Your task to perform on an android device: Open the map Image 0: 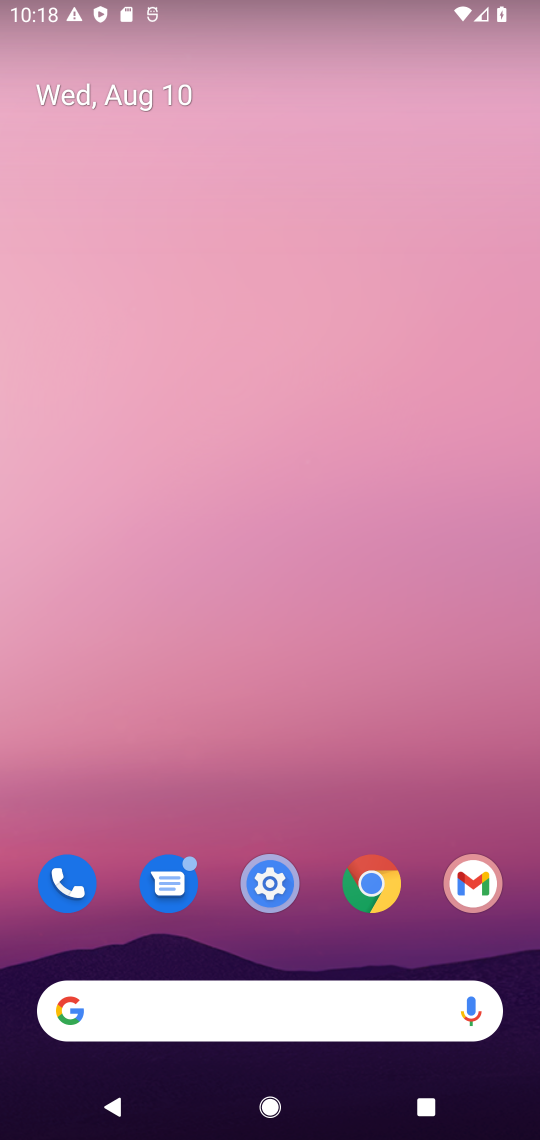
Step 0: drag from (329, 906) to (378, 77)
Your task to perform on an android device: Open the map Image 1: 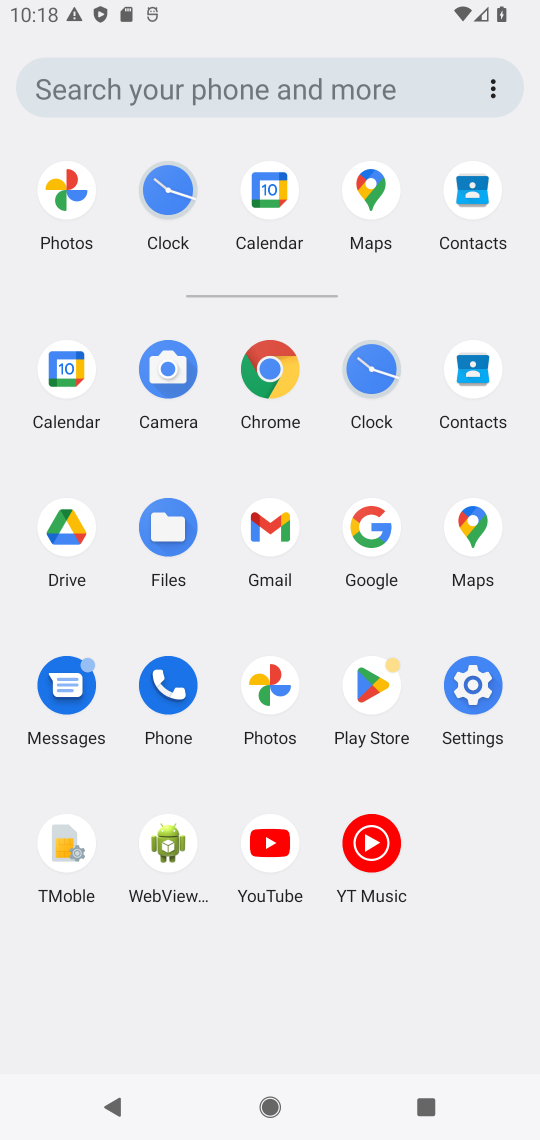
Step 1: click (479, 523)
Your task to perform on an android device: Open the map Image 2: 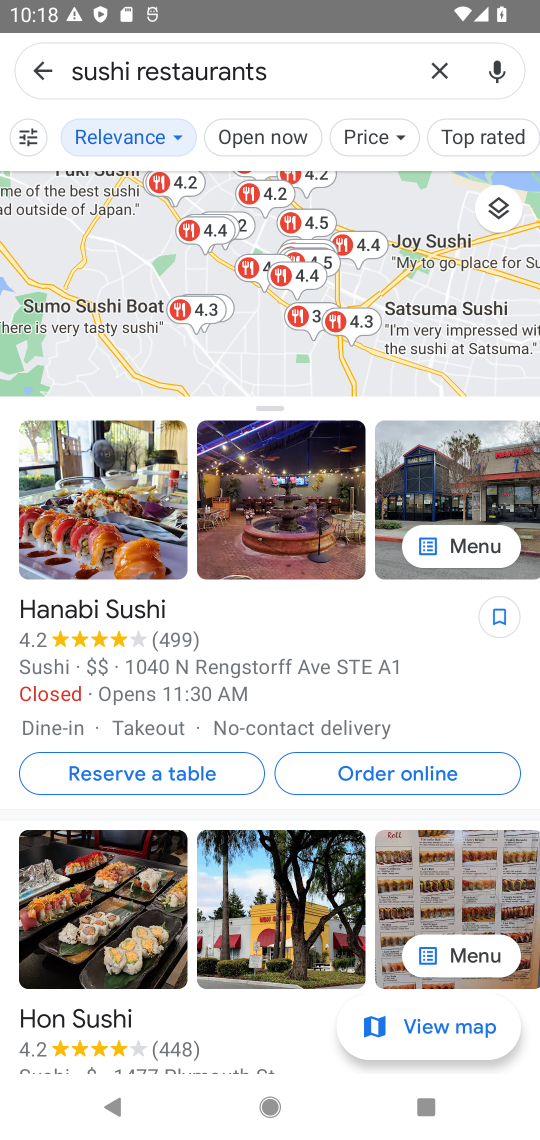
Step 2: click (43, 79)
Your task to perform on an android device: Open the map Image 3: 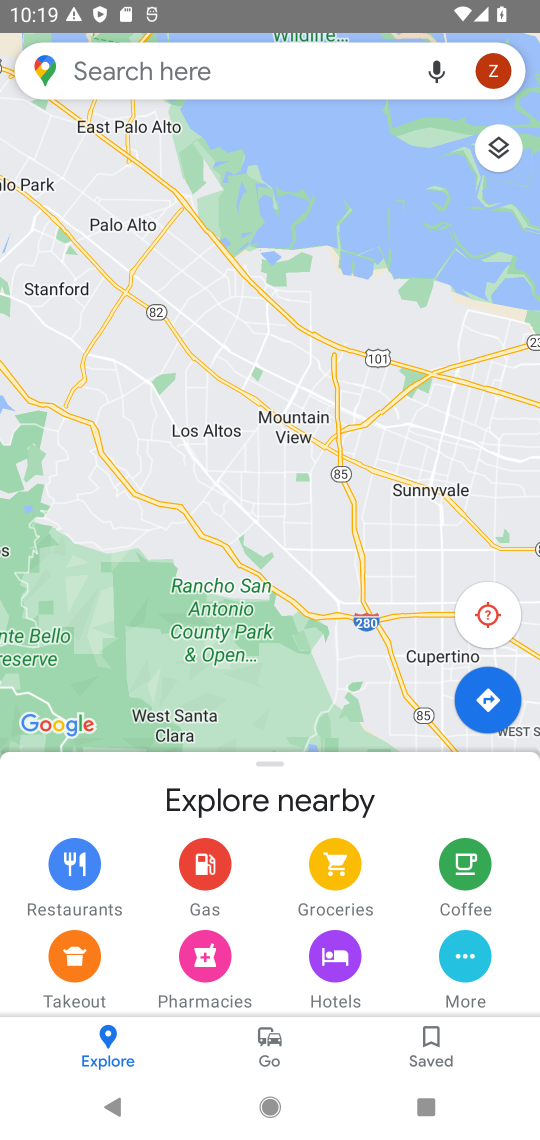
Step 3: task complete